Your task to perform on an android device: Go to Maps Image 0: 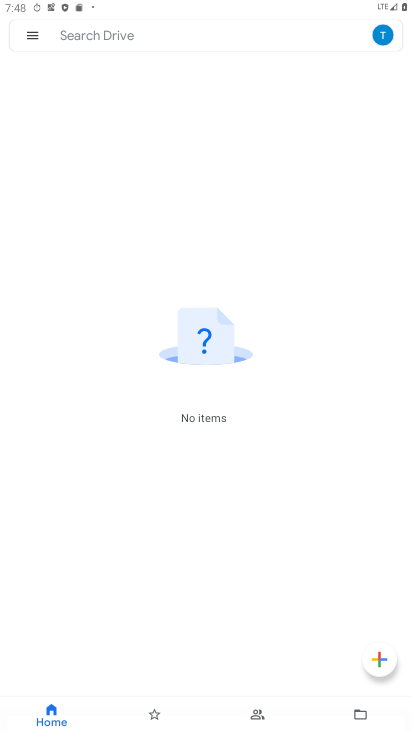
Step 0: press home button
Your task to perform on an android device: Go to Maps Image 1: 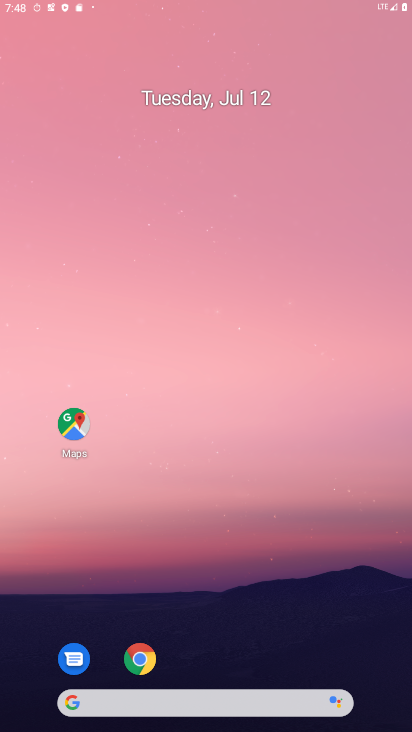
Step 1: drag from (368, 666) to (249, 11)
Your task to perform on an android device: Go to Maps Image 2: 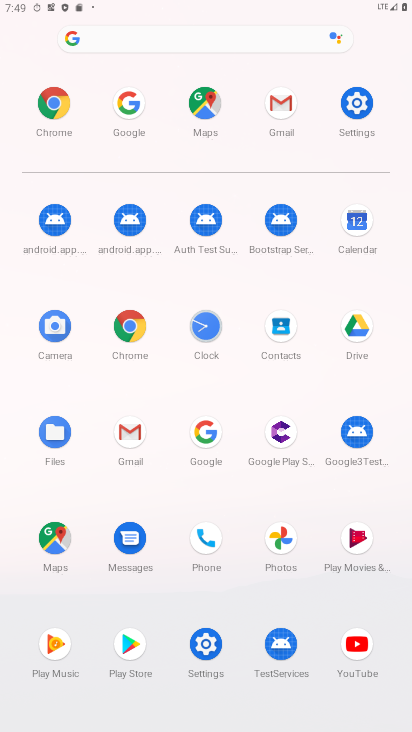
Step 2: click (62, 528)
Your task to perform on an android device: Go to Maps Image 3: 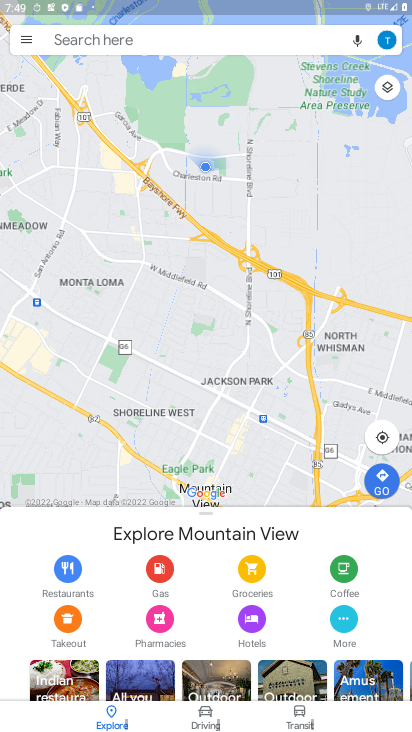
Step 3: task complete